Your task to perform on an android device: open chrome privacy settings Image 0: 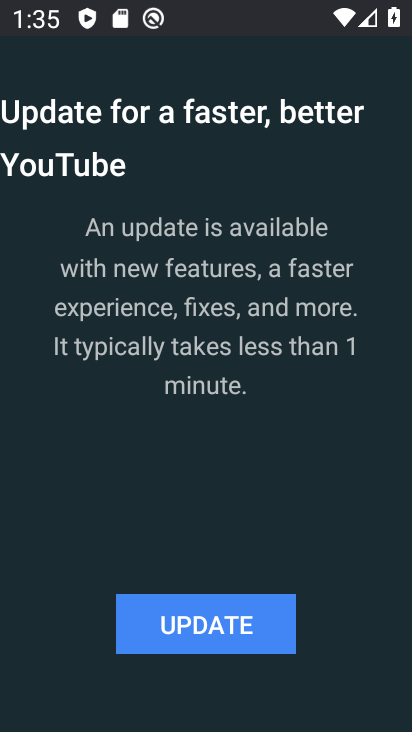
Step 0: press home button
Your task to perform on an android device: open chrome privacy settings Image 1: 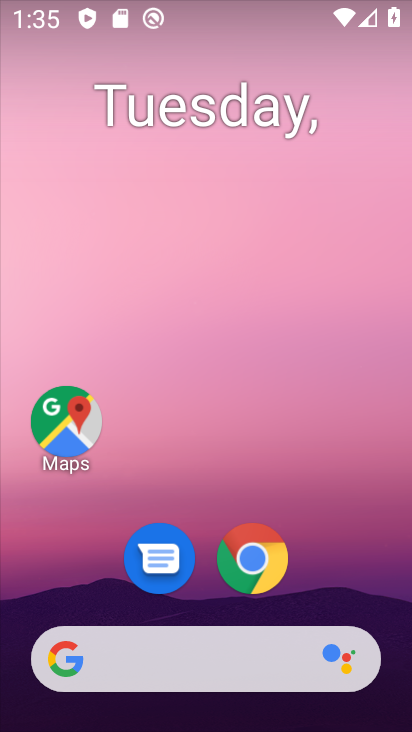
Step 1: drag from (124, 566) to (297, 84)
Your task to perform on an android device: open chrome privacy settings Image 2: 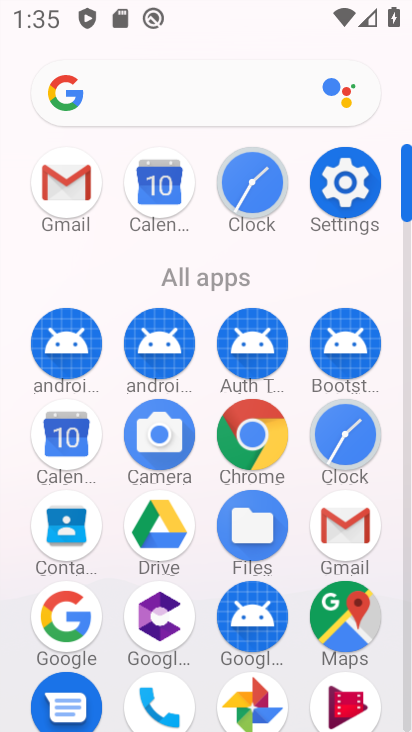
Step 2: click (249, 440)
Your task to perform on an android device: open chrome privacy settings Image 3: 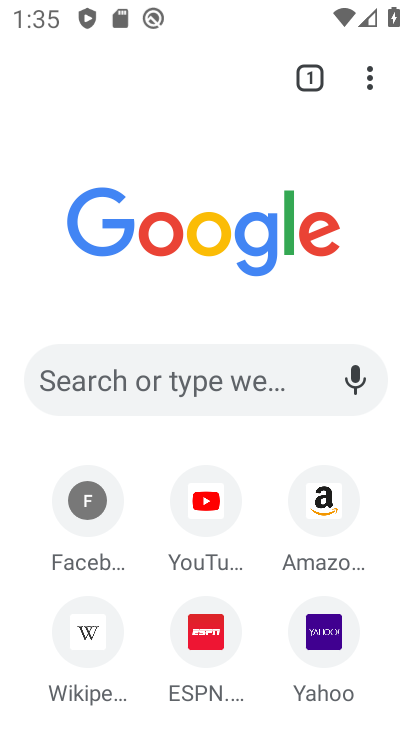
Step 3: drag from (377, 62) to (124, 613)
Your task to perform on an android device: open chrome privacy settings Image 4: 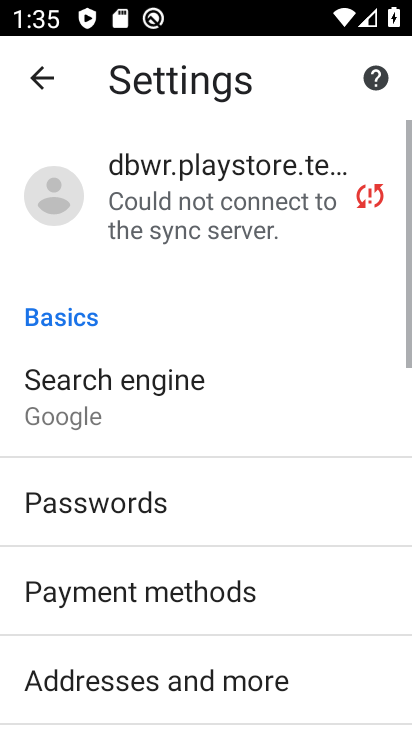
Step 4: drag from (144, 647) to (332, 116)
Your task to perform on an android device: open chrome privacy settings Image 5: 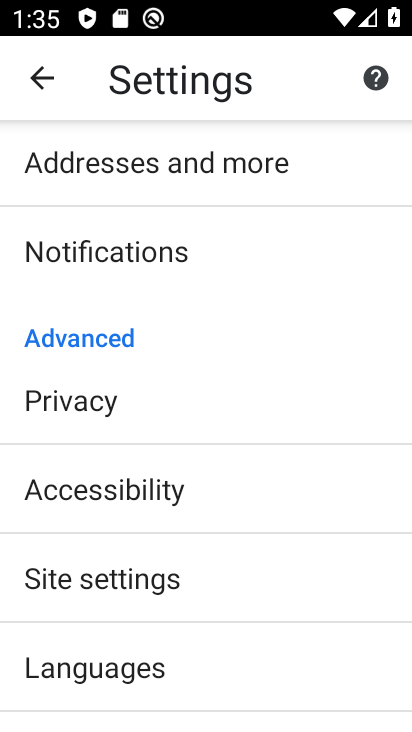
Step 5: click (121, 429)
Your task to perform on an android device: open chrome privacy settings Image 6: 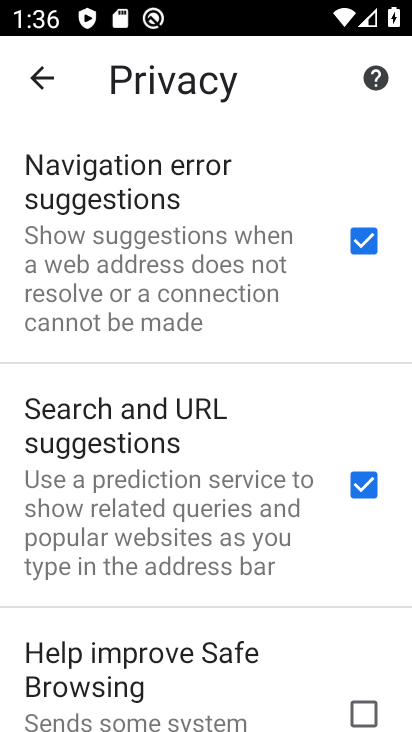
Step 6: task complete